Your task to perform on an android device: Open my contact list Image 0: 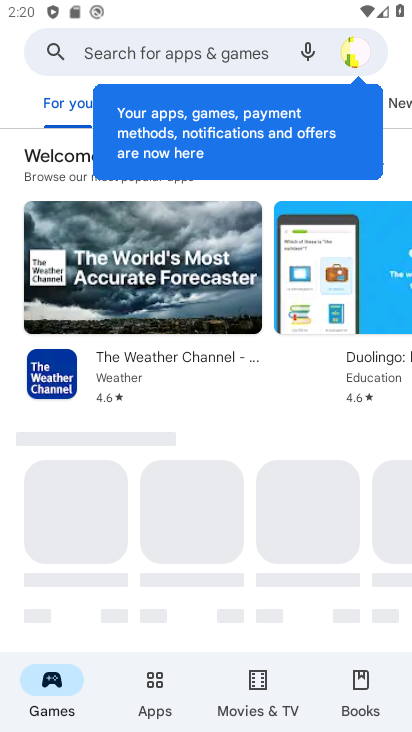
Step 0: press back button
Your task to perform on an android device: Open my contact list Image 1: 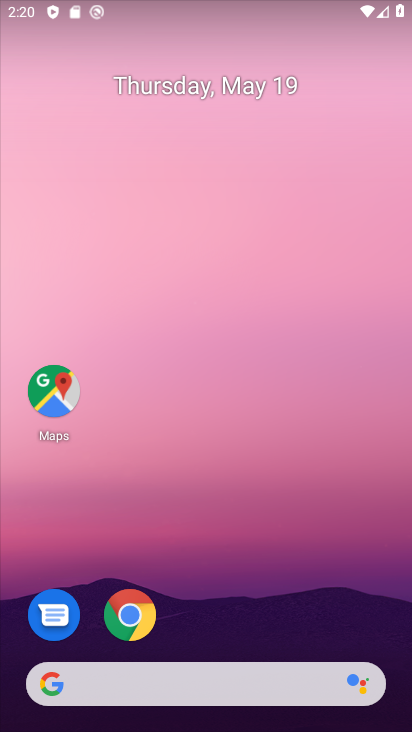
Step 1: drag from (208, 433) to (173, 32)
Your task to perform on an android device: Open my contact list Image 2: 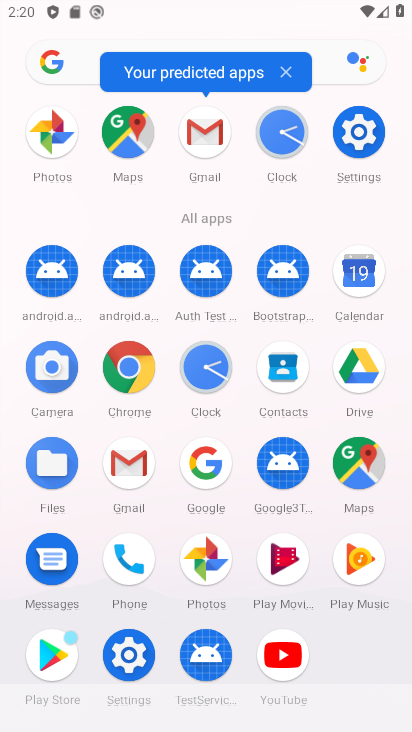
Step 2: click (279, 362)
Your task to perform on an android device: Open my contact list Image 3: 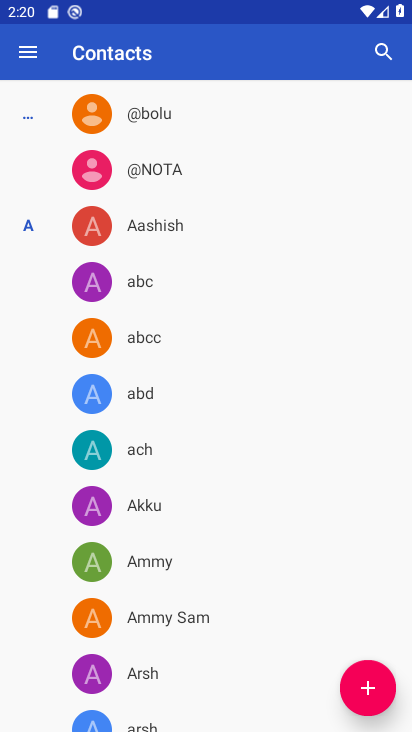
Step 3: task complete